Your task to perform on an android device: Open the map Image 0: 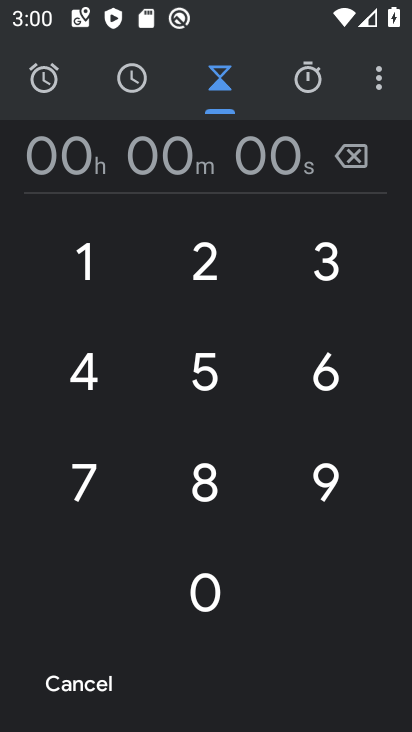
Step 0: press back button
Your task to perform on an android device: Open the map Image 1: 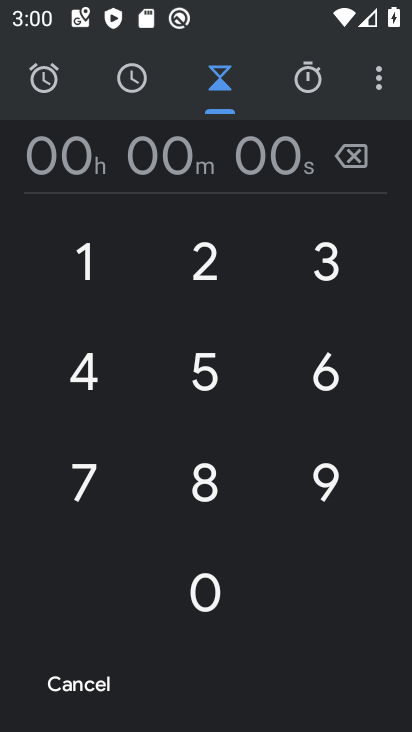
Step 1: press back button
Your task to perform on an android device: Open the map Image 2: 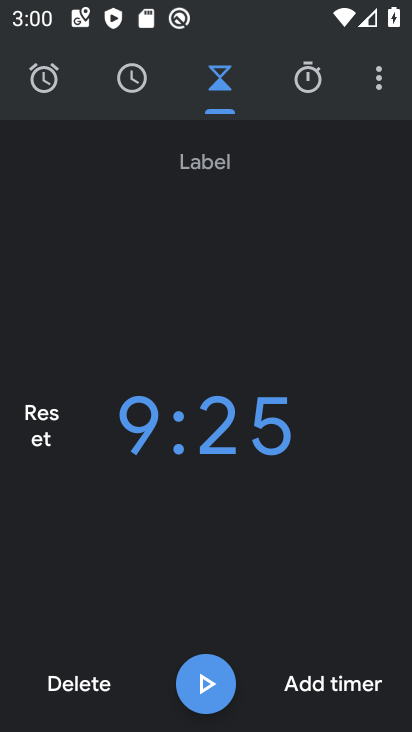
Step 2: press back button
Your task to perform on an android device: Open the map Image 3: 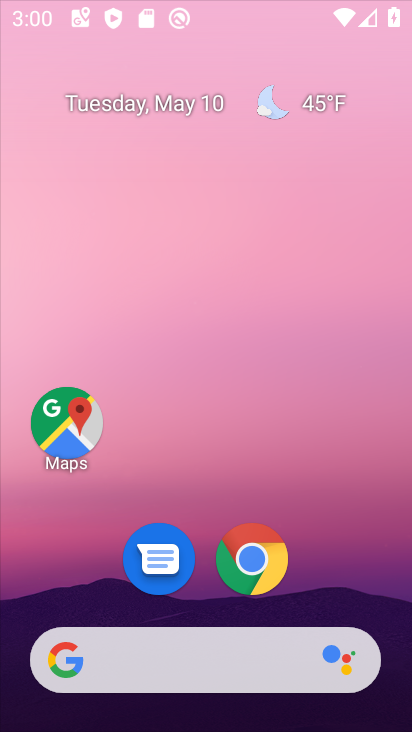
Step 3: press back button
Your task to perform on an android device: Open the map Image 4: 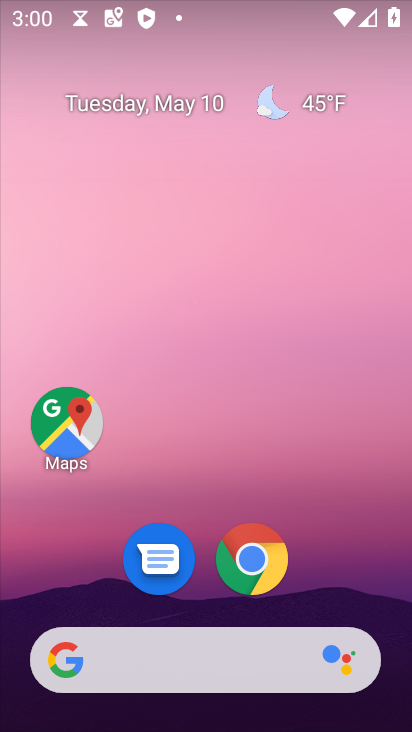
Step 4: click (55, 407)
Your task to perform on an android device: Open the map Image 5: 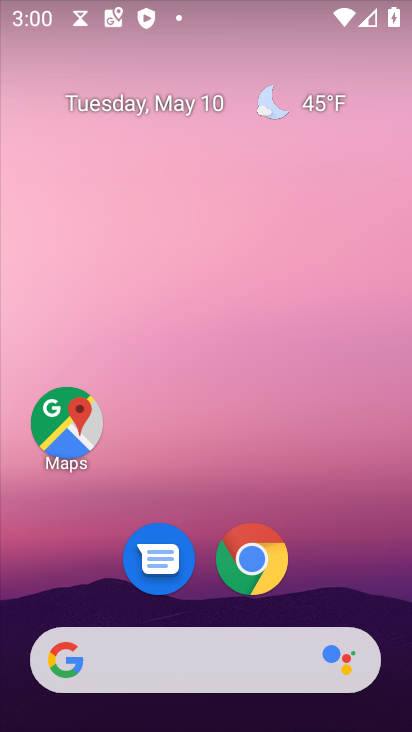
Step 5: click (56, 408)
Your task to perform on an android device: Open the map Image 6: 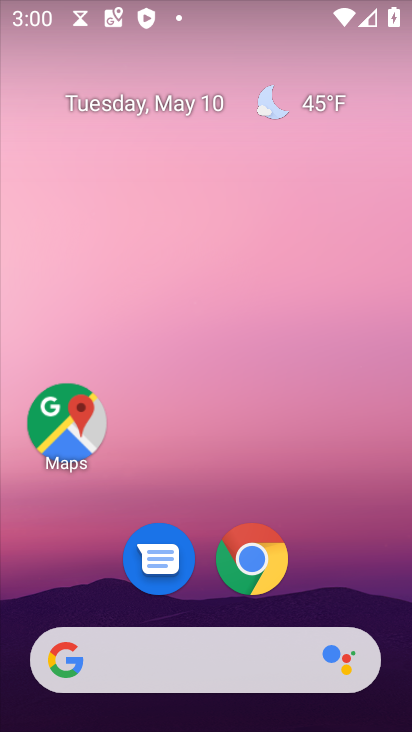
Step 6: click (59, 408)
Your task to perform on an android device: Open the map Image 7: 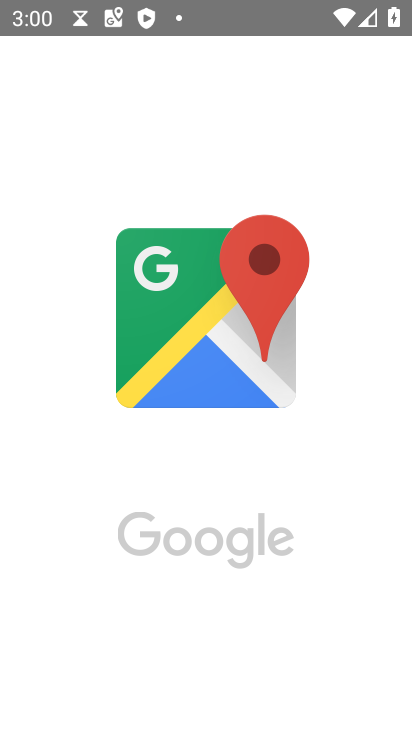
Step 7: click (66, 388)
Your task to perform on an android device: Open the map Image 8: 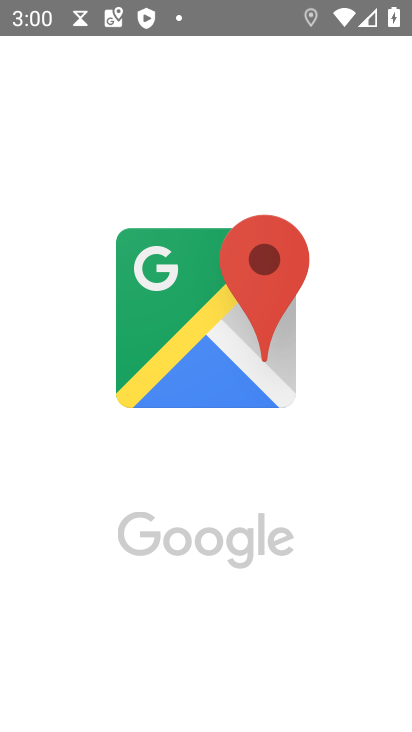
Step 8: click (66, 386)
Your task to perform on an android device: Open the map Image 9: 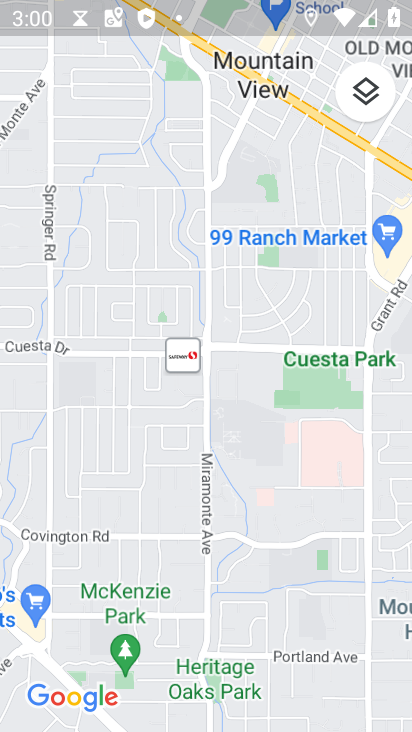
Step 9: task complete